Your task to perform on an android device: turn on data saver in the chrome app Image 0: 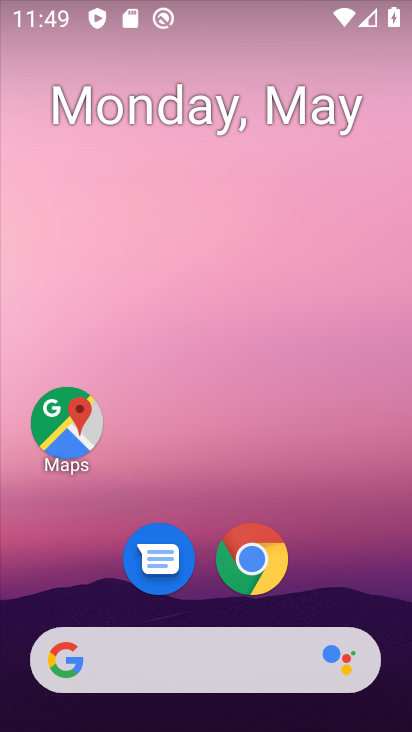
Step 0: click (272, 570)
Your task to perform on an android device: turn on data saver in the chrome app Image 1: 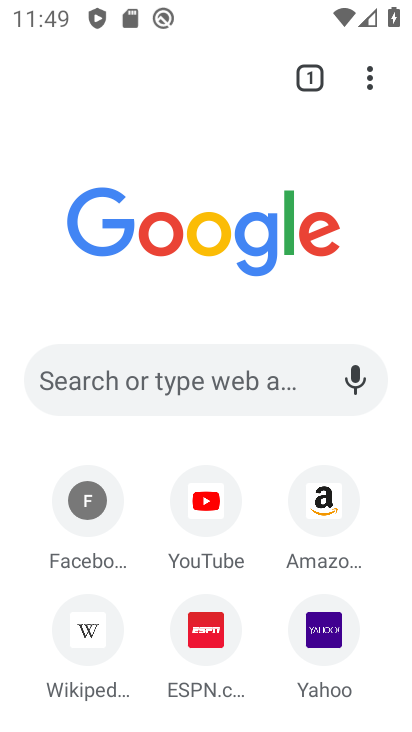
Step 1: drag from (387, 67) to (218, 620)
Your task to perform on an android device: turn on data saver in the chrome app Image 2: 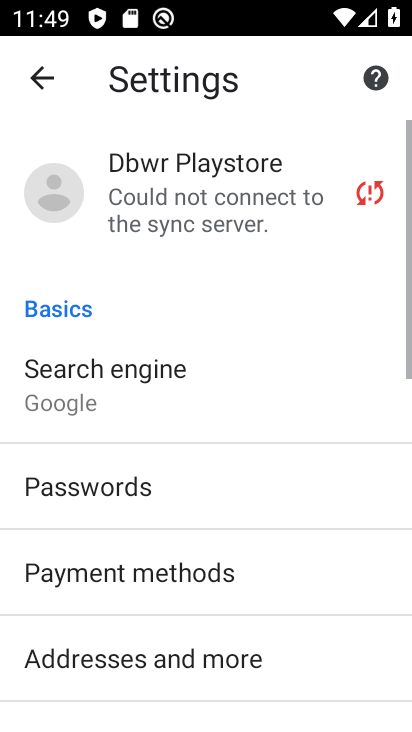
Step 2: drag from (150, 646) to (268, 132)
Your task to perform on an android device: turn on data saver in the chrome app Image 3: 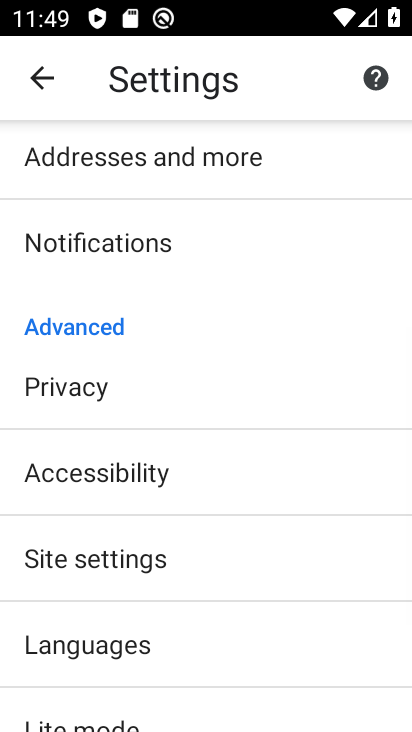
Step 3: drag from (128, 617) to (195, 381)
Your task to perform on an android device: turn on data saver in the chrome app Image 4: 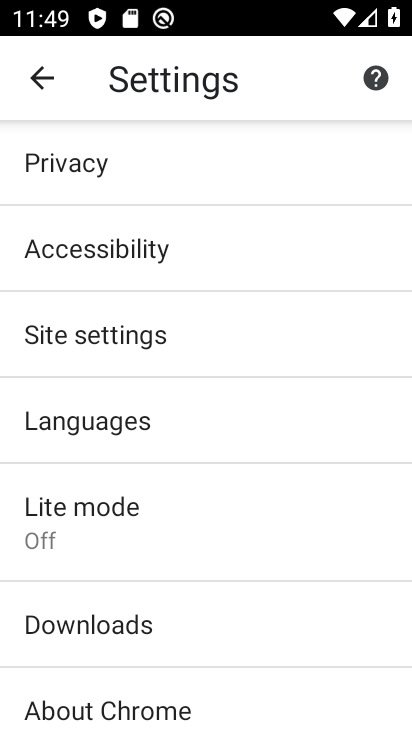
Step 4: click (171, 540)
Your task to perform on an android device: turn on data saver in the chrome app Image 5: 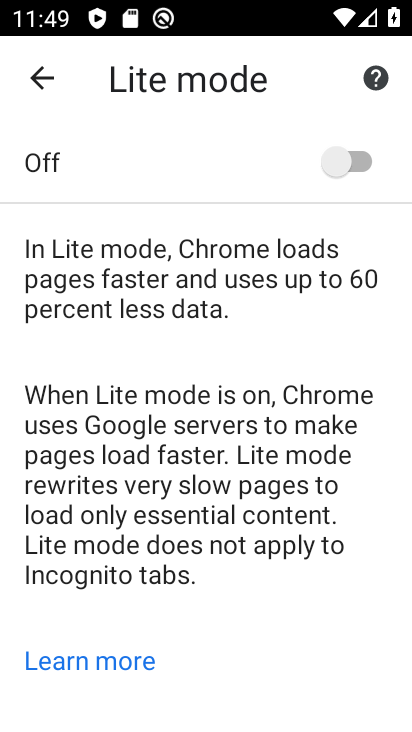
Step 5: click (389, 159)
Your task to perform on an android device: turn on data saver in the chrome app Image 6: 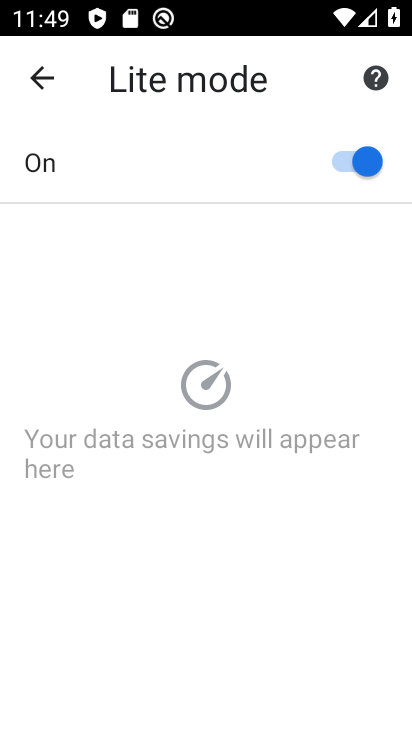
Step 6: task complete